Your task to perform on an android device: turn on wifi Image 0: 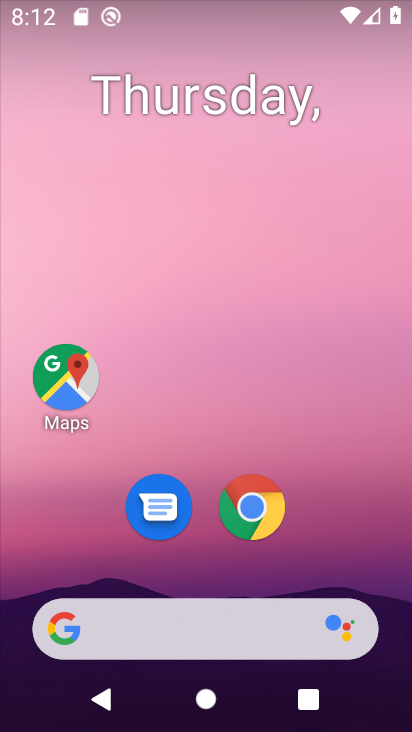
Step 0: drag from (250, 539) to (265, 152)
Your task to perform on an android device: turn on wifi Image 1: 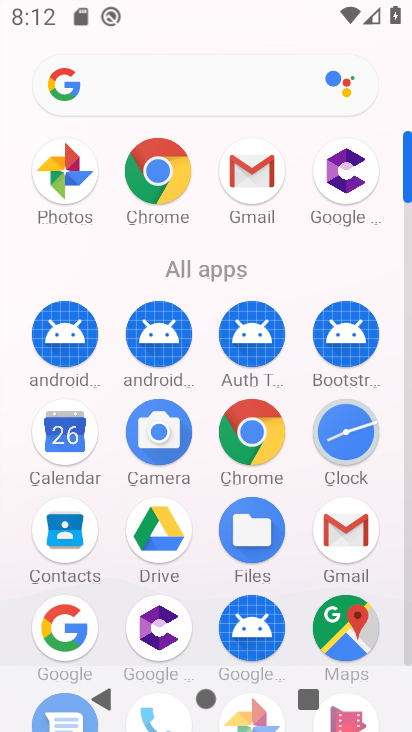
Step 1: drag from (205, 518) to (249, 91)
Your task to perform on an android device: turn on wifi Image 2: 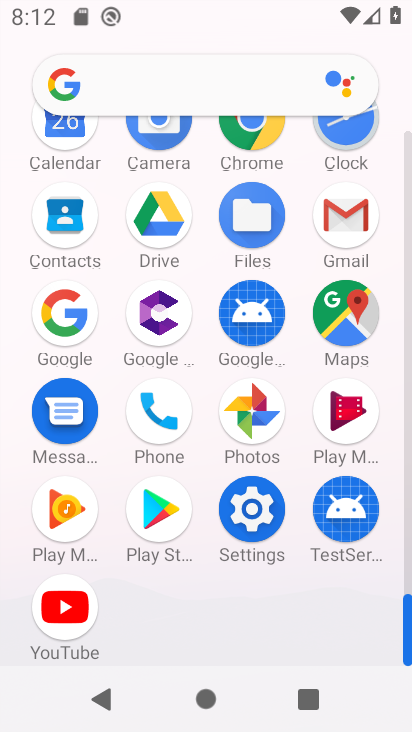
Step 2: drag from (248, 508) to (86, 210)
Your task to perform on an android device: turn on wifi Image 3: 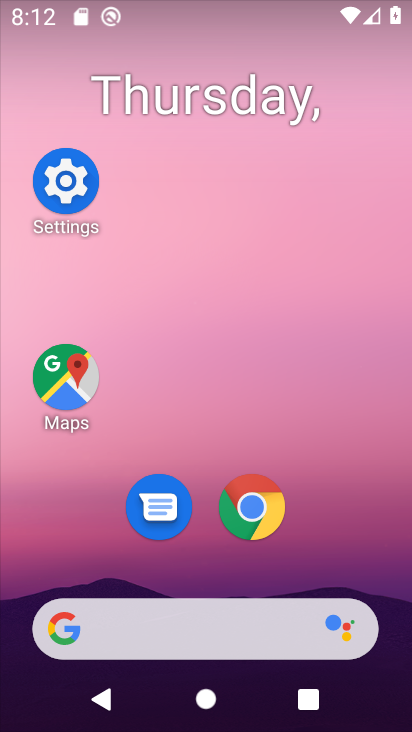
Step 3: click (76, 189)
Your task to perform on an android device: turn on wifi Image 4: 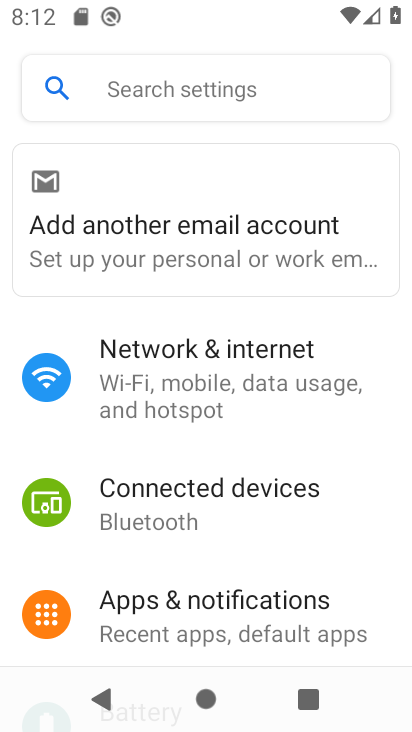
Step 4: click (208, 358)
Your task to perform on an android device: turn on wifi Image 5: 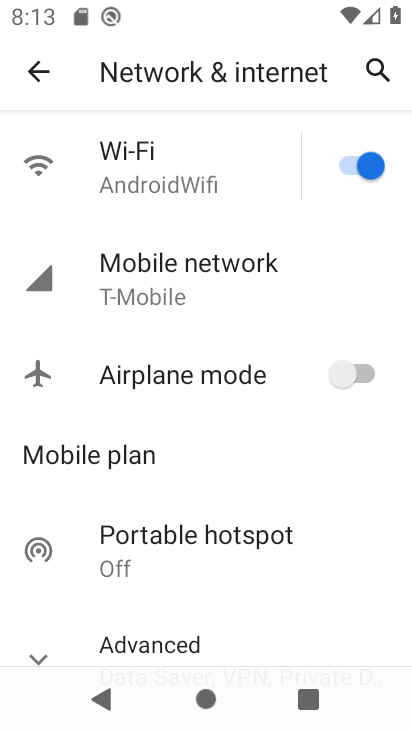
Step 5: click (387, 162)
Your task to perform on an android device: turn on wifi Image 6: 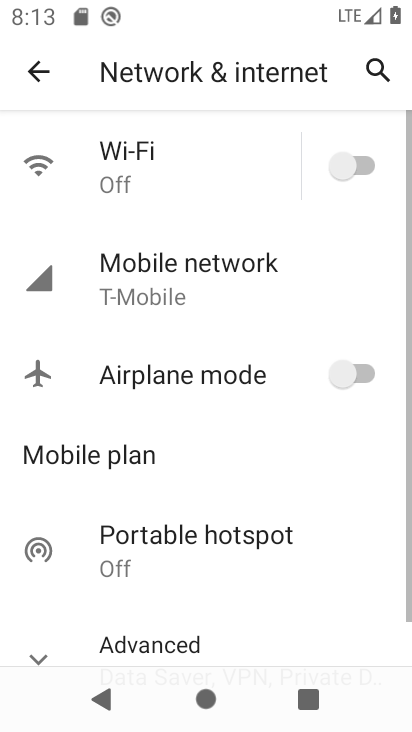
Step 6: task complete